Your task to perform on an android device: remove spam from my inbox in the gmail app Image 0: 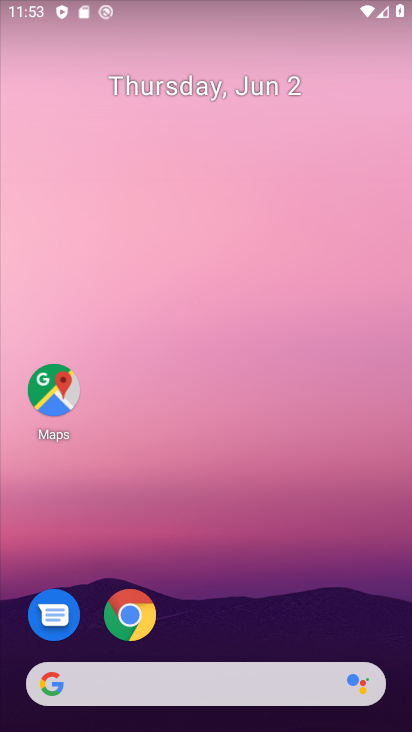
Step 0: drag from (136, 507) to (97, 58)
Your task to perform on an android device: remove spam from my inbox in the gmail app Image 1: 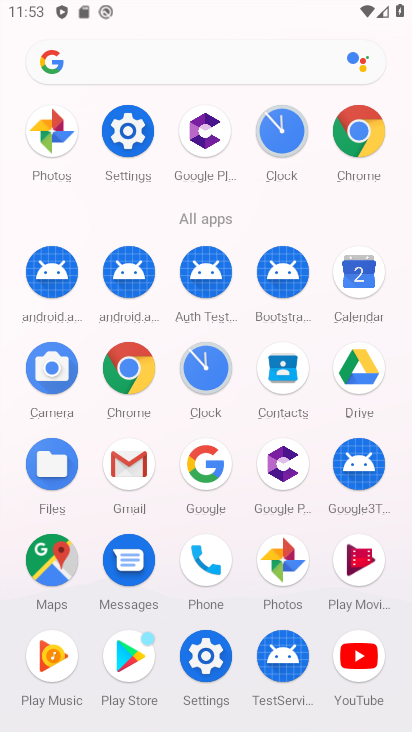
Step 1: click (130, 482)
Your task to perform on an android device: remove spam from my inbox in the gmail app Image 2: 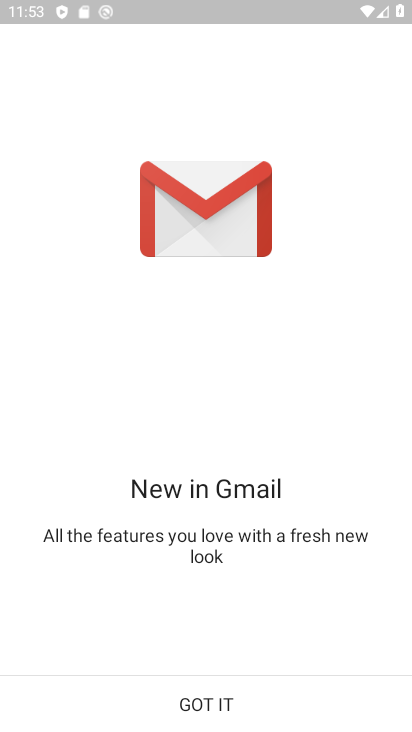
Step 2: click (226, 689)
Your task to perform on an android device: remove spam from my inbox in the gmail app Image 3: 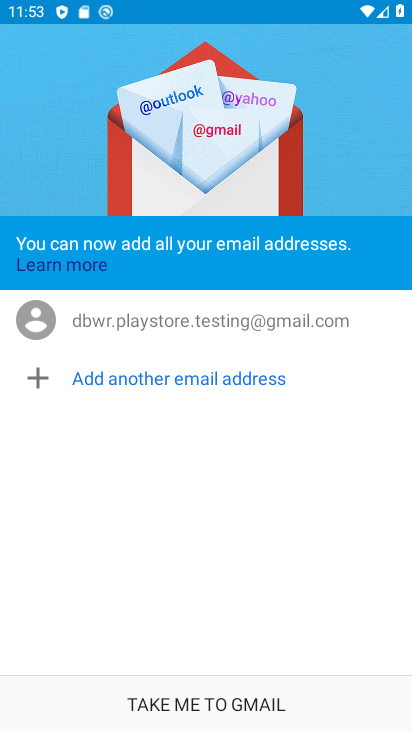
Step 3: click (225, 698)
Your task to perform on an android device: remove spam from my inbox in the gmail app Image 4: 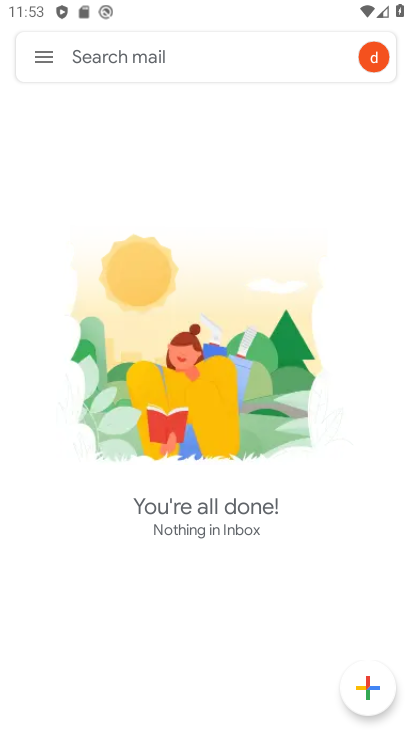
Step 4: click (35, 56)
Your task to perform on an android device: remove spam from my inbox in the gmail app Image 5: 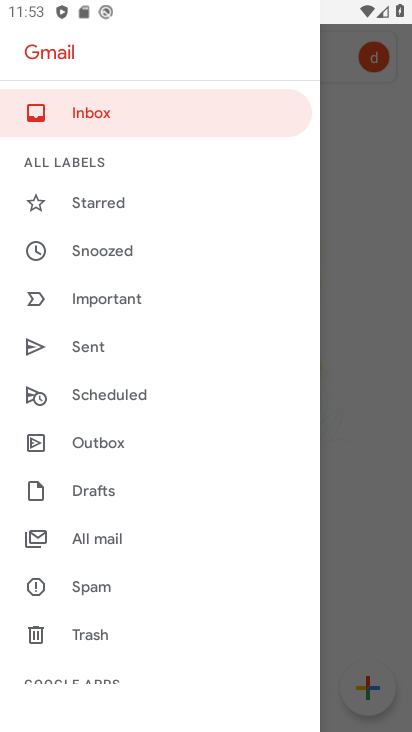
Step 5: click (75, 593)
Your task to perform on an android device: remove spam from my inbox in the gmail app Image 6: 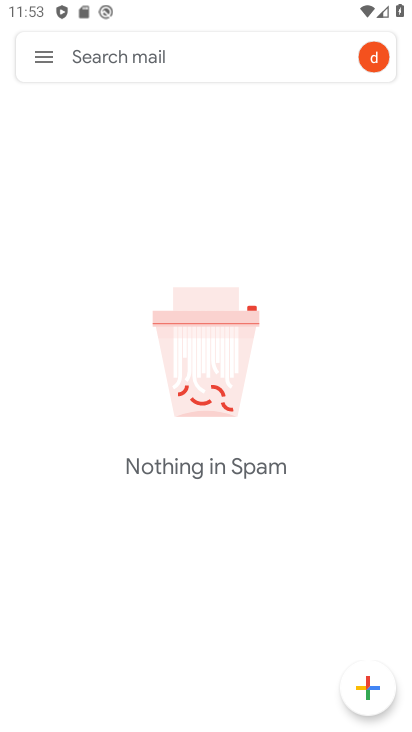
Step 6: task complete